Your task to perform on an android device: choose inbox layout in the gmail app Image 0: 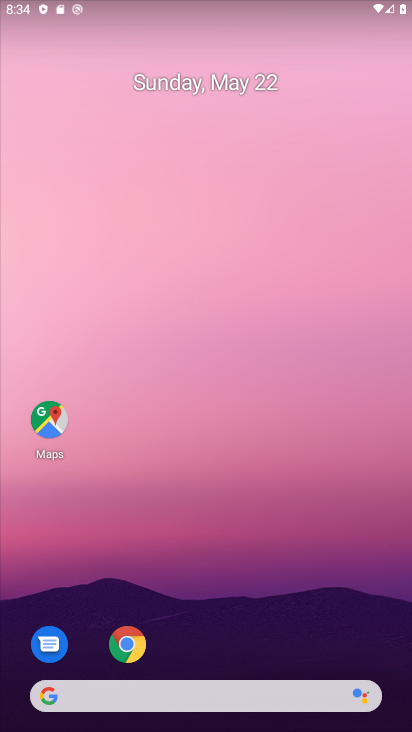
Step 0: drag from (177, 696) to (191, 276)
Your task to perform on an android device: choose inbox layout in the gmail app Image 1: 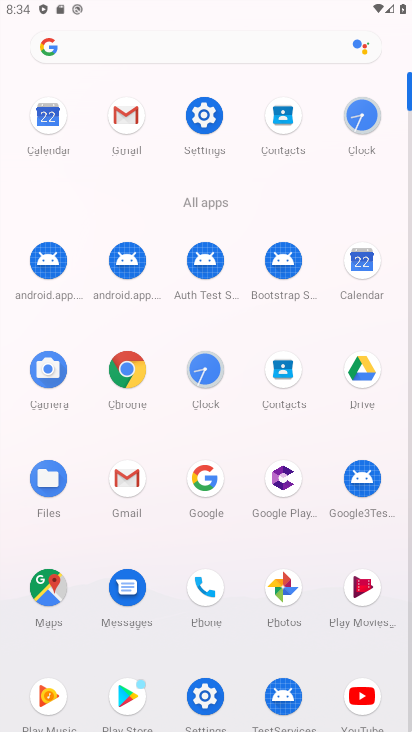
Step 1: click (119, 476)
Your task to perform on an android device: choose inbox layout in the gmail app Image 2: 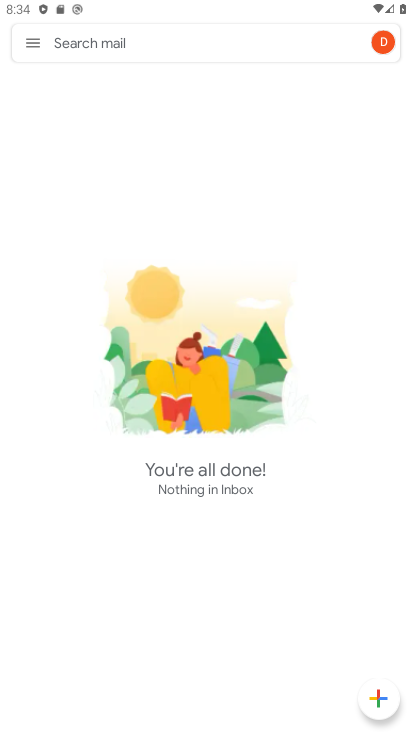
Step 2: click (29, 42)
Your task to perform on an android device: choose inbox layout in the gmail app Image 3: 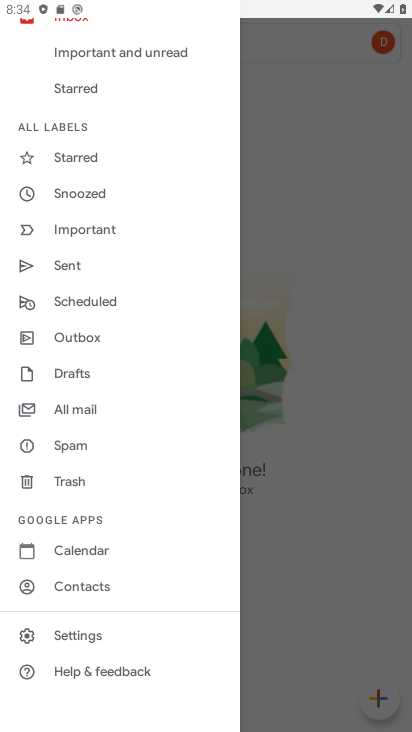
Step 3: click (103, 632)
Your task to perform on an android device: choose inbox layout in the gmail app Image 4: 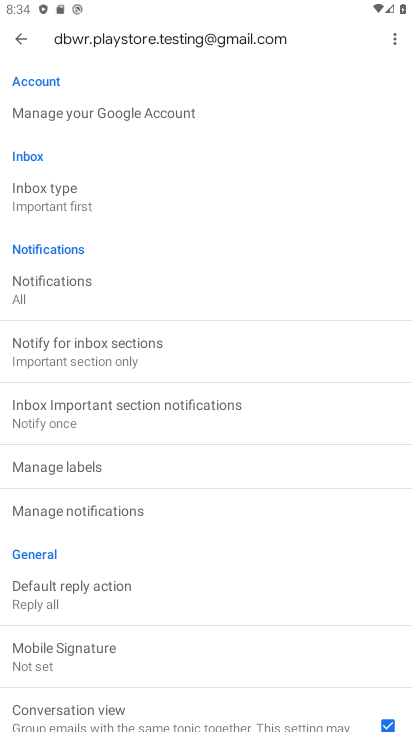
Step 4: click (52, 190)
Your task to perform on an android device: choose inbox layout in the gmail app Image 5: 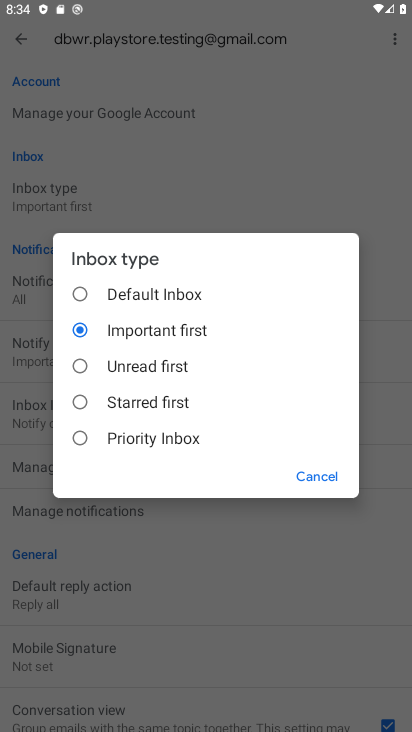
Step 5: click (123, 300)
Your task to perform on an android device: choose inbox layout in the gmail app Image 6: 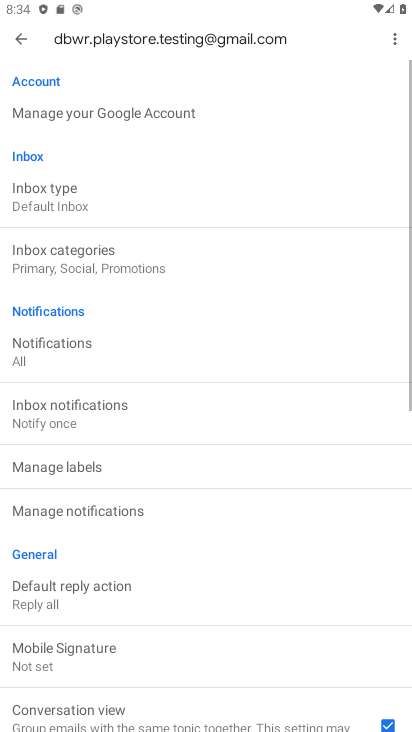
Step 6: task complete